Your task to perform on an android device: find photos in the google photos app Image 0: 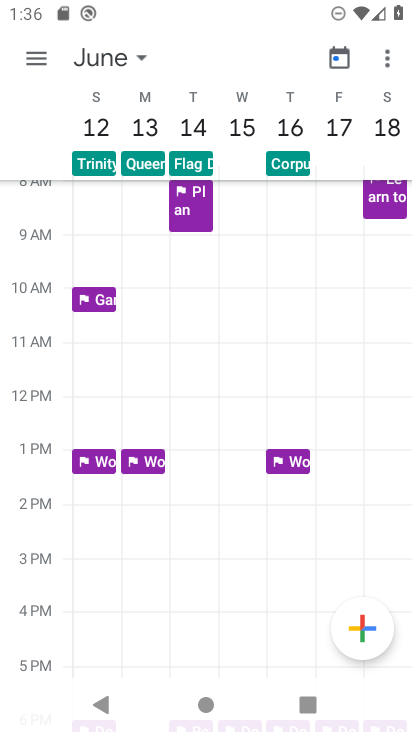
Step 0: press home button
Your task to perform on an android device: find photos in the google photos app Image 1: 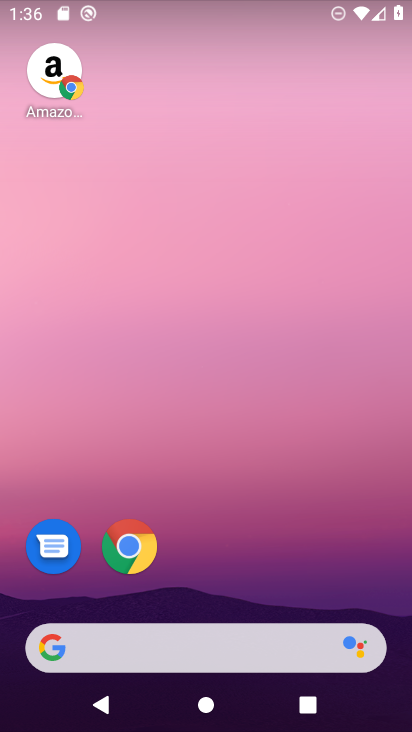
Step 1: drag from (270, 646) to (231, 1)
Your task to perform on an android device: find photos in the google photos app Image 2: 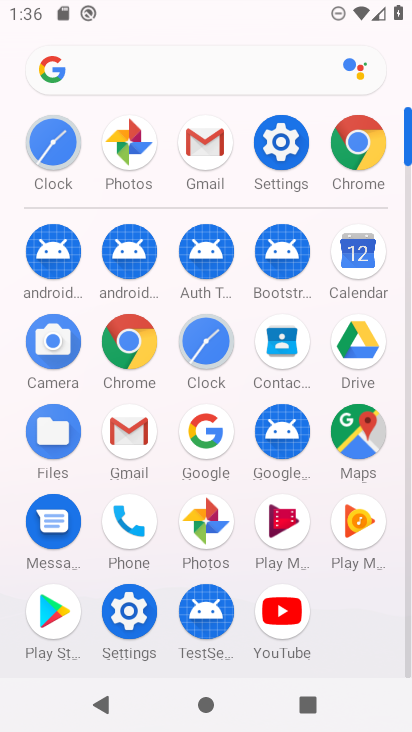
Step 2: click (189, 529)
Your task to perform on an android device: find photos in the google photos app Image 3: 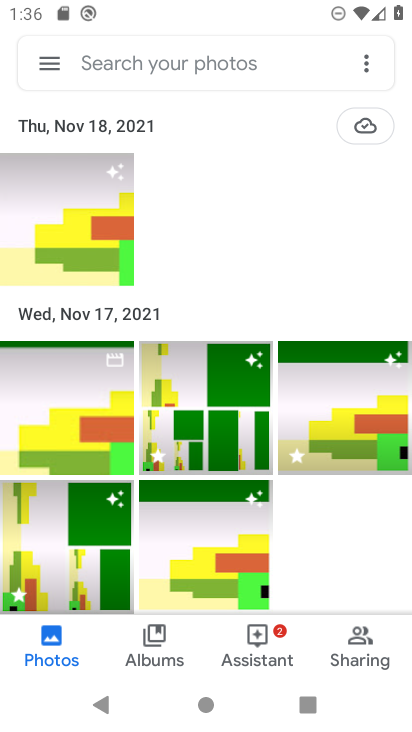
Step 3: task complete